Your task to perform on an android device: delete browsing data in the chrome app Image 0: 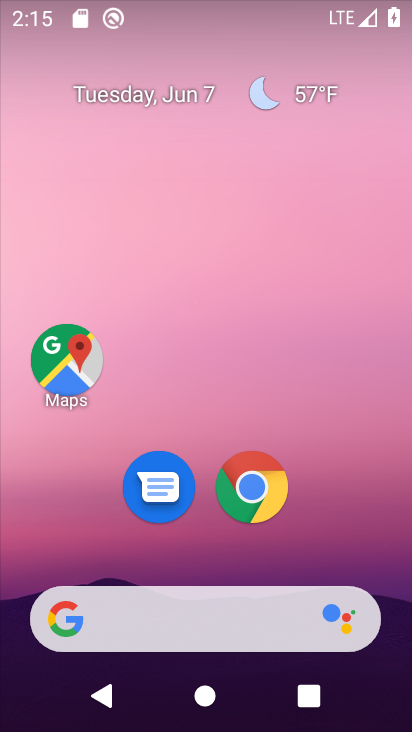
Step 0: drag from (188, 337) to (35, 540)
Your task to perform on an android device: delete browsing data in the chrome app Image 1: 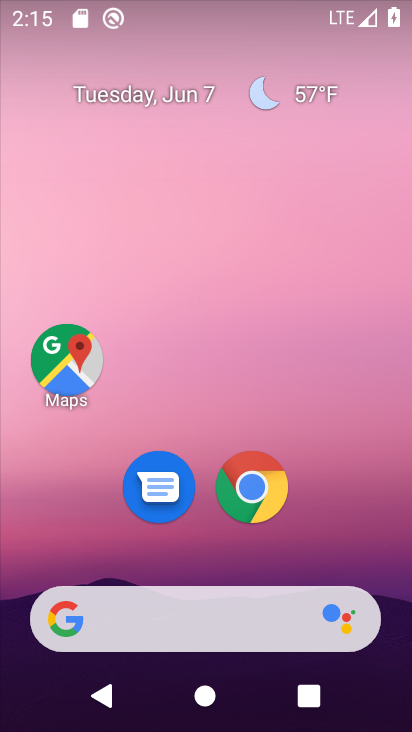
Step 1: drag from (186, 569) to (403, 546)
Your task to perform on an android device: delete browsing data in the chrome app Image 2: 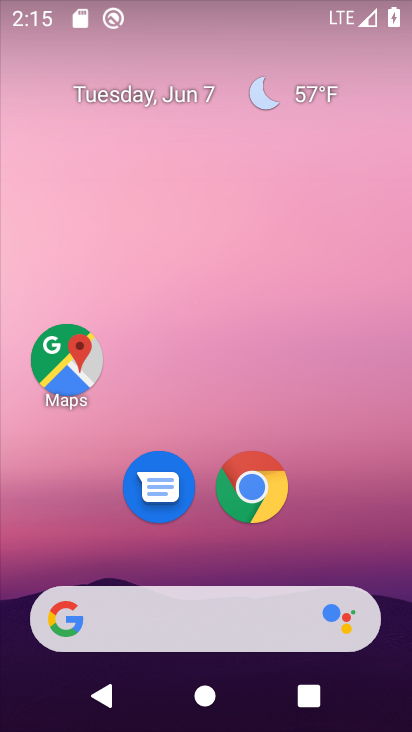
Step 2: click (253, 481)
Your task to perform on an android device: delete browsing data in the chrome app Image 3: 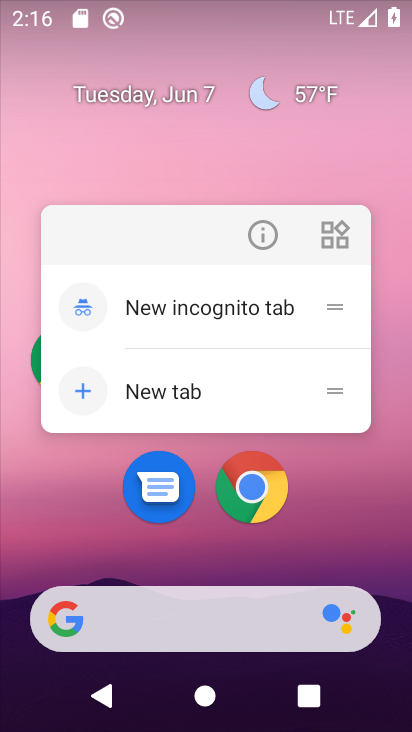
Step 3: click (232, 554)
Your task to perform on an android device: delete browsing data in the chrome app Image 4: 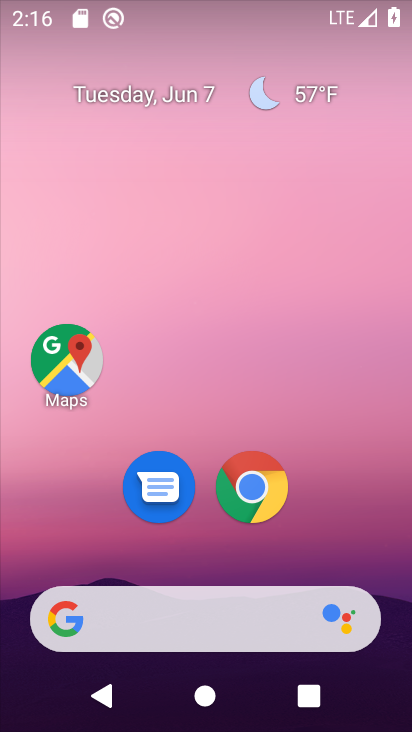
Step 4: click (255, 509)
Your task to perform on an android device: delete browsing data in the chrome app Image 5: 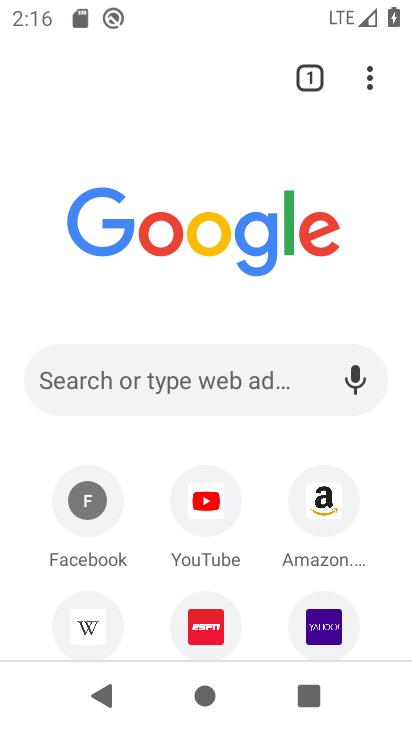
Step 5: click (365, 85)
Your task to perform on an android device: delete browsing data in the chrome app Image 6: 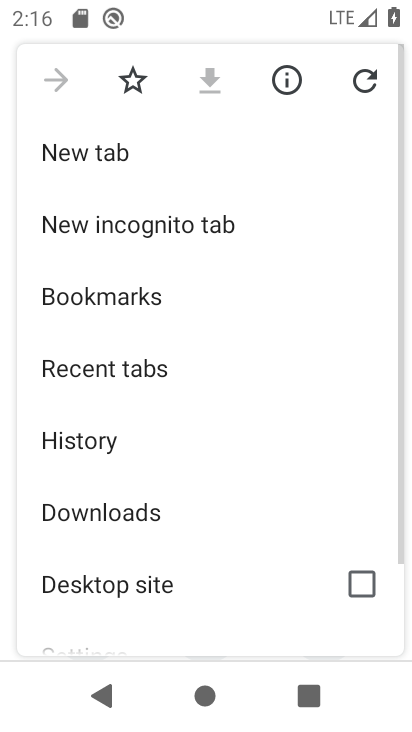
Step 6: click (142, 436)
Your task to perform on an android device: delete browsing data in the chrome app Image 7: 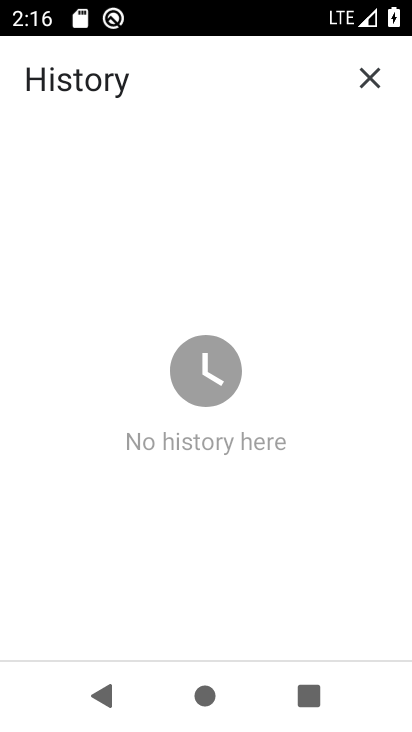
Step 7: task complete